Your task to perform on an android device: turn off picture-in-picture Image 0: 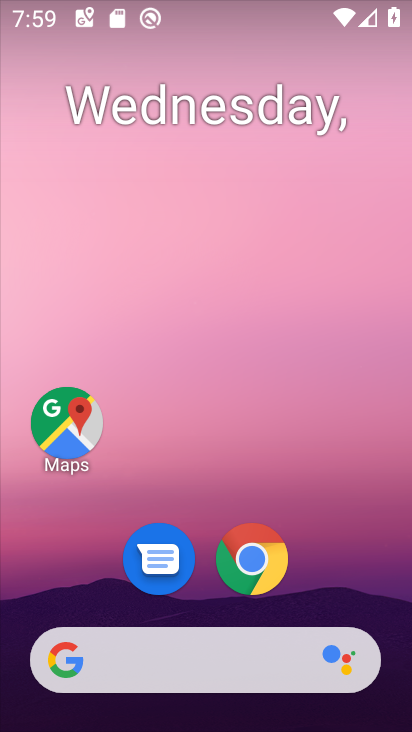
Step 0: drag from (363, 576) to (313, 108)
Your task to perform on an android device: turn off picture-in-picture Image 1: 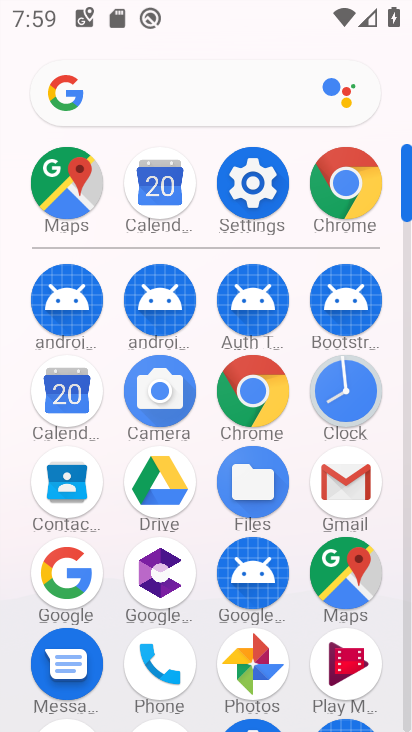
Step 1: click (268, 183)
Your task to perform on an android device: turn off picture-in-picture Image 2: 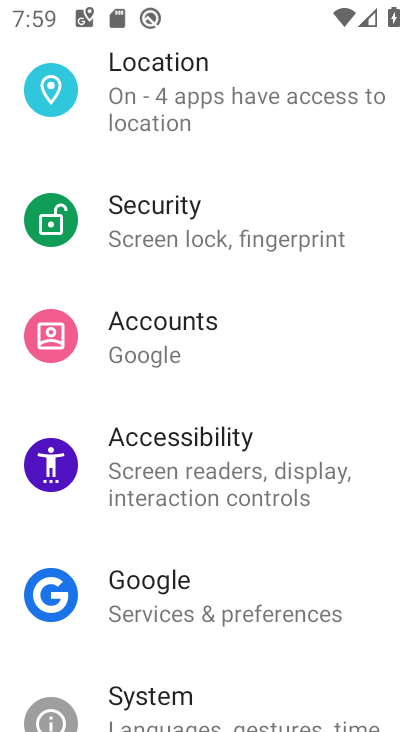
Step 2: drag from (285, 180) to (320, 589)
Your task to perform on an android device: turn off picture-in-picture Image 3: 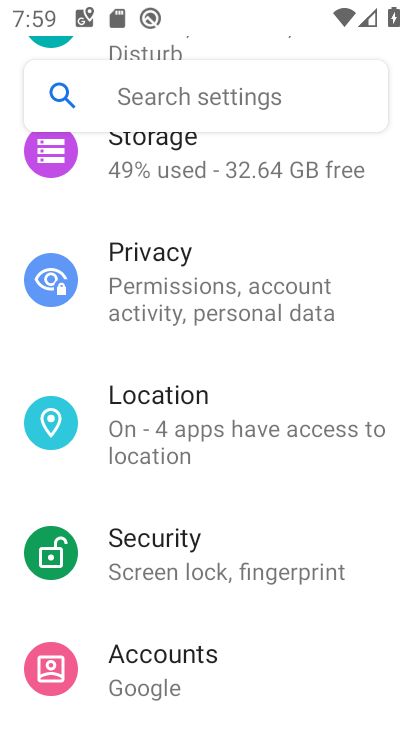
Step 3: drag from (264, 256) to (292, 622)
Your task to perform on an android device: turn off picture-in-picture Image 4: 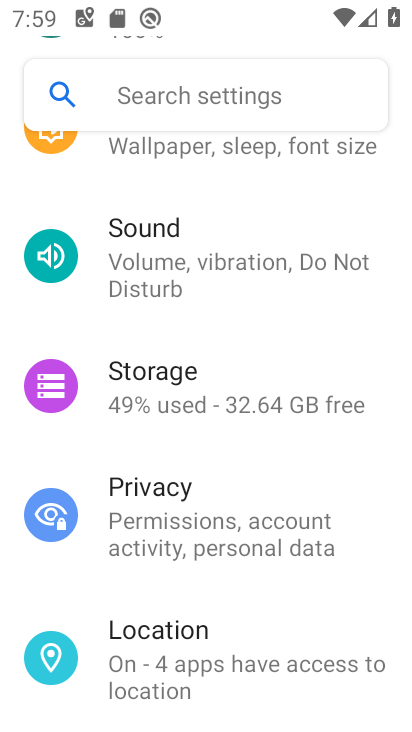
Step 4: drag from (282, 222) to (323, 588)
Your task to perform on an android device: turn off picture-in-picture Image 5: 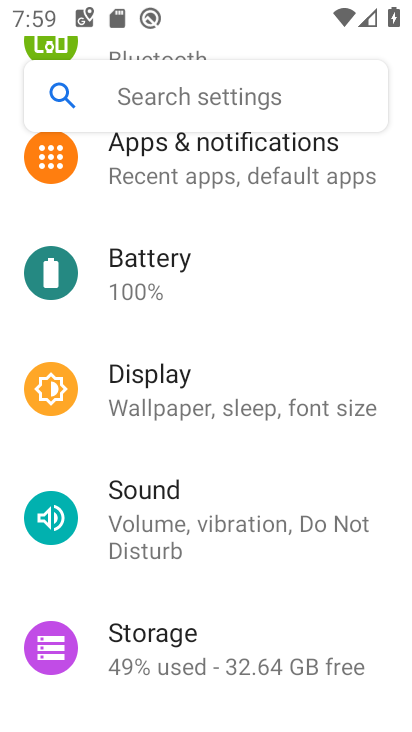
Step 5: drag from (286, 314) to (286, 600)
Your task to perform on an android device: turn off picture-in-picture Image 6: 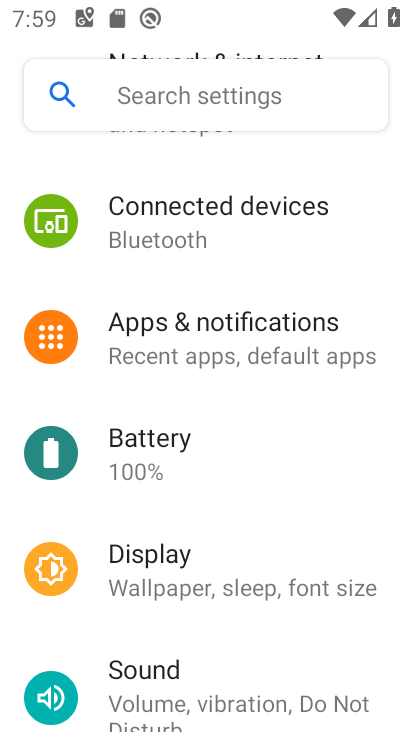
Step 6: click (217, 327)
Your task to perform on an android device: turn off picture-in-picture Image 7: 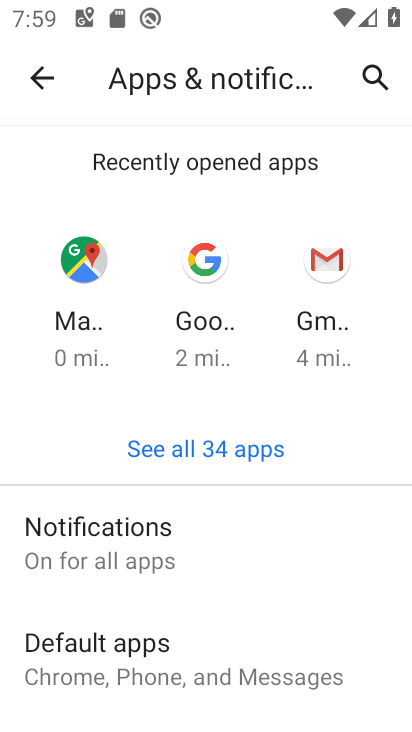
Step 7: drag from (257, 562) to (254, 239)
Your task to perform on an android device: turn off picture-in-picture Image 8: 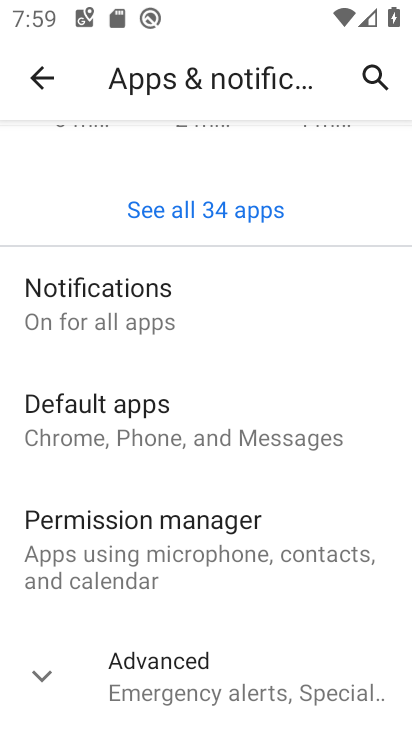
Step 8: drag from (254, 659) to (275, 338)
Your task to perform on an android device: turn off picture-in-picture Image 9: 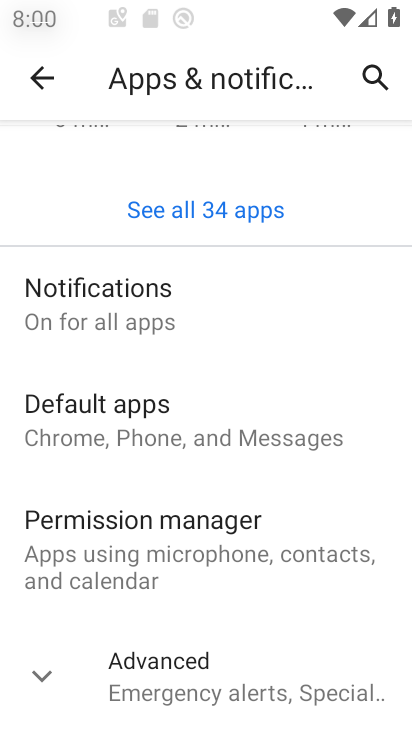
Step 9: click (237, 673)
Your task to perform on an android device: turn off picture-in-picture Image 10: 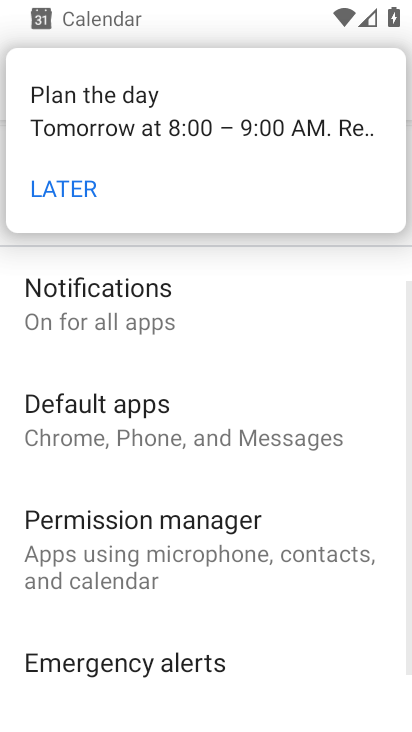
Step 10: drag from (283, 663) to (303, 266)
Your task to perform on an android device: turn off picture-in-picture Image 11: 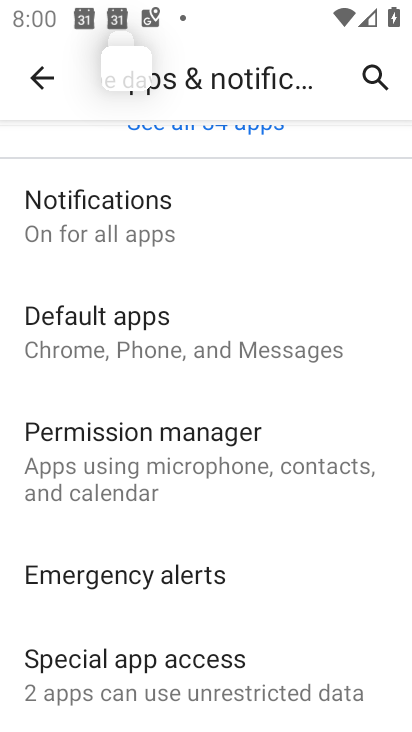
Step 11: click (210, 652)
Your task to perform on an android device: turn off picture-in-picture Image 12: 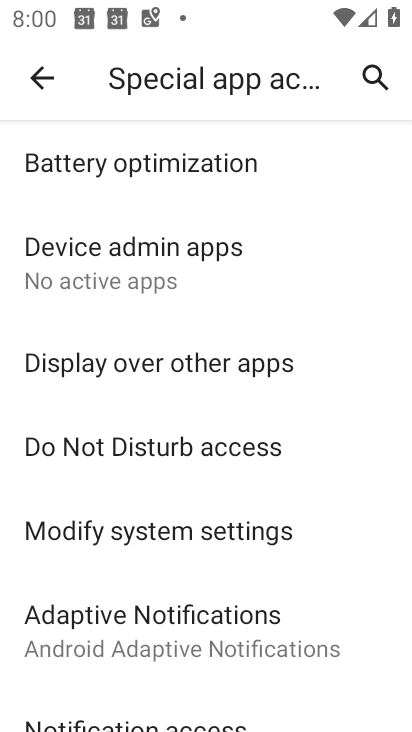
Step 12: drag from (336, 532) to (348, 259)
Your task to perform on an android device: turn off picture-in-picture Image 13: 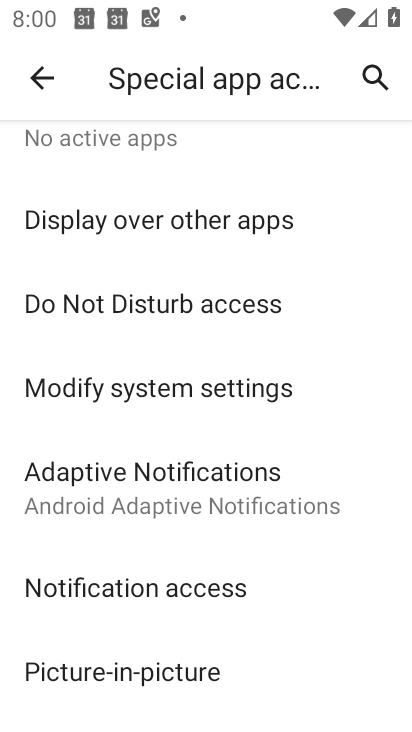
Step 13: click (173, 681)
Your task to perform on an android device: turn off picture-in-picture Image 14: 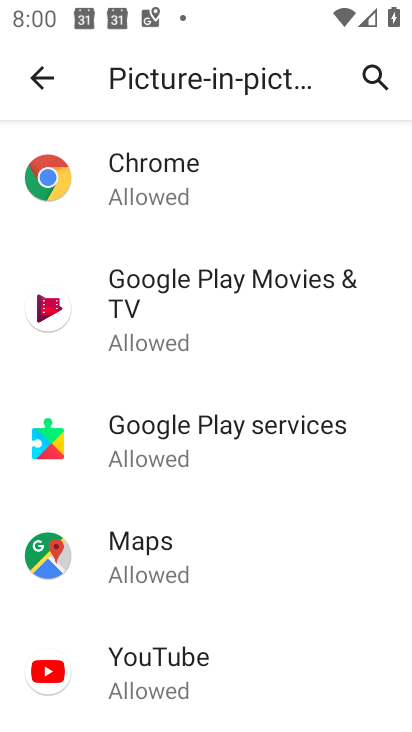
Step 14: click (170, 185)
Your task to perform on an android device: turn off picture-in-picture Image 15: 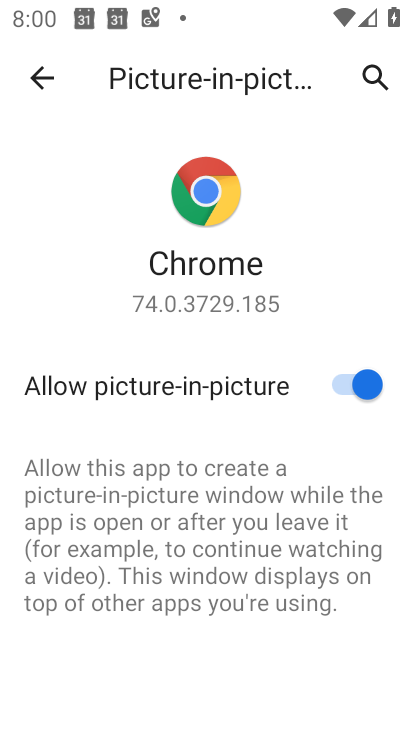
Step 15: click (333, 381)
Your task to perform on an android device: turn off picture-in-picture Image 16: 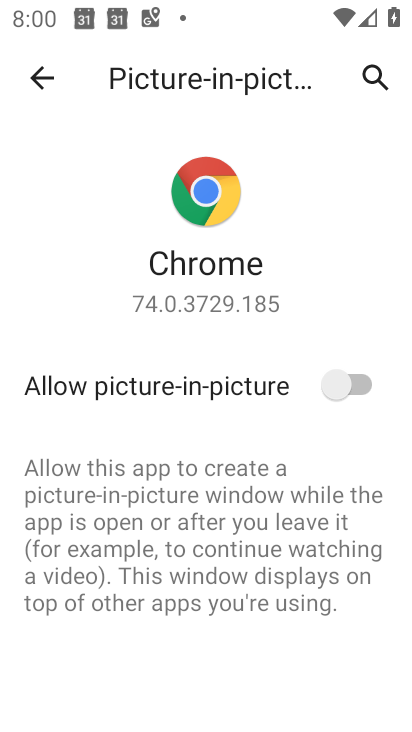
Step 16: task complete